Your task to perform on an android device: Show me productivity apps on the Play Store Image 0: 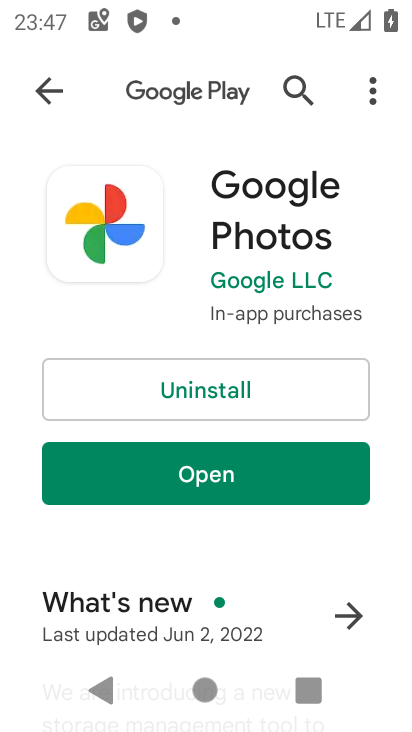
Step 0: press home button
Your task to perform on an android device: Show me productivity apps on the Play Store Image 1: 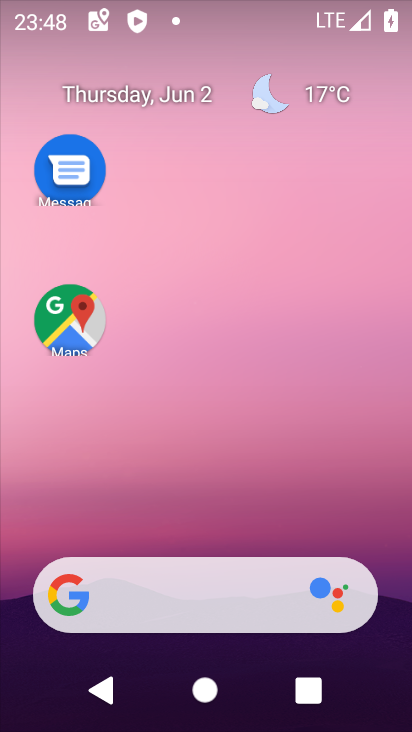
Step 1: drag from (399, 642) to (234, 70)
Your task to perform on an android device: Show me productivity apps on the Play Store Image 2: 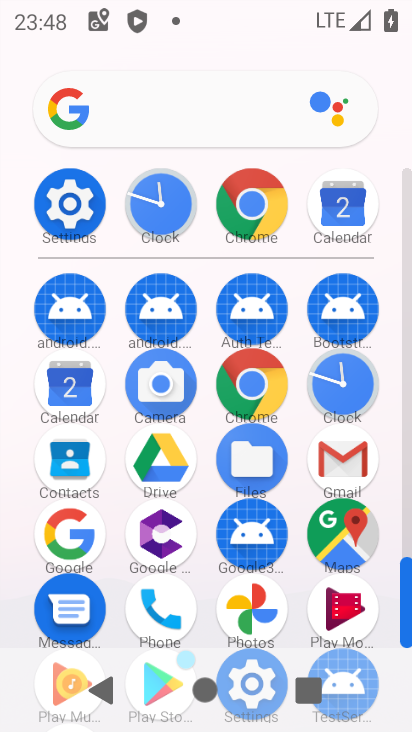
Step 2: drag from (302, 501) to (262, 627)
Your task to perform on an android device: Show me productivity apps on the Play Store Image 3: 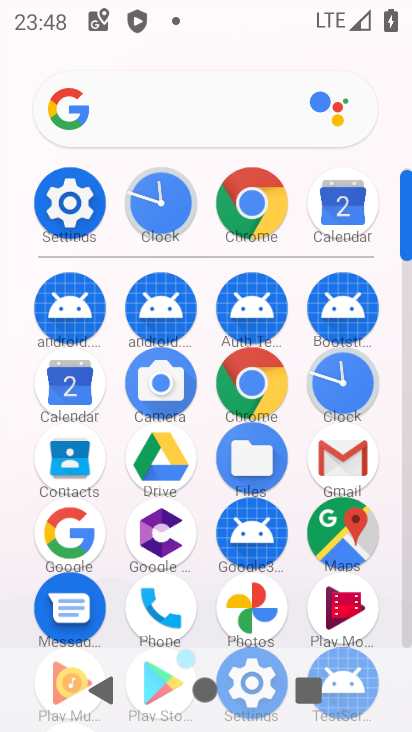
Step 3: drag from (300, 608) to (232, 358)
Your task to perform on an android device: Show me productivity apps on the Play Store Image 4: 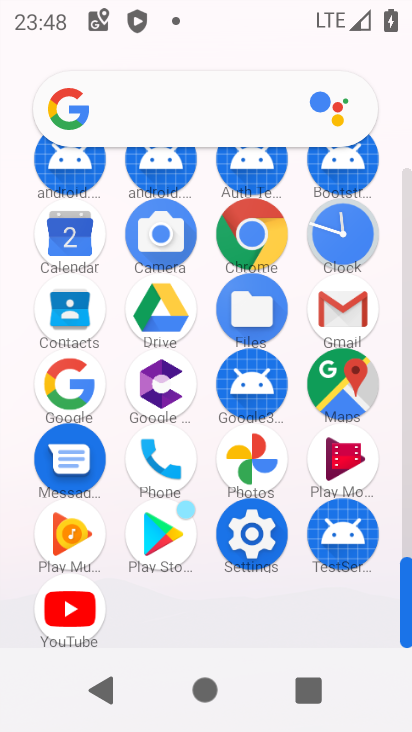
Step 4: click (175, 530)
Your task to perform on an android device: Show me productivity apps on the Play Store Image 5: 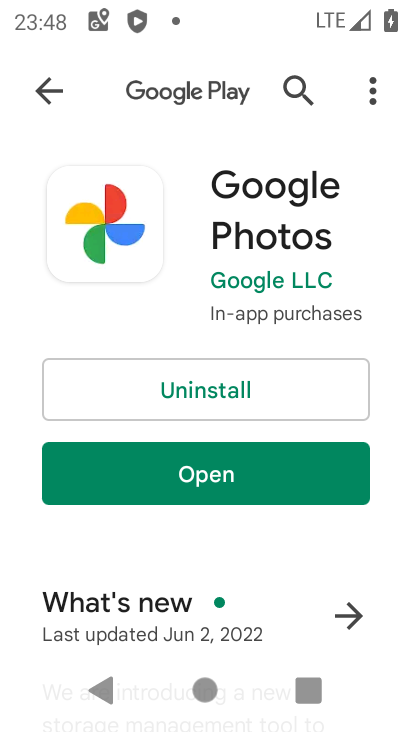
Step 5: click (28, 99)
Your task to perform on an android device: Show me productivity apps on the Play Store Image 6: 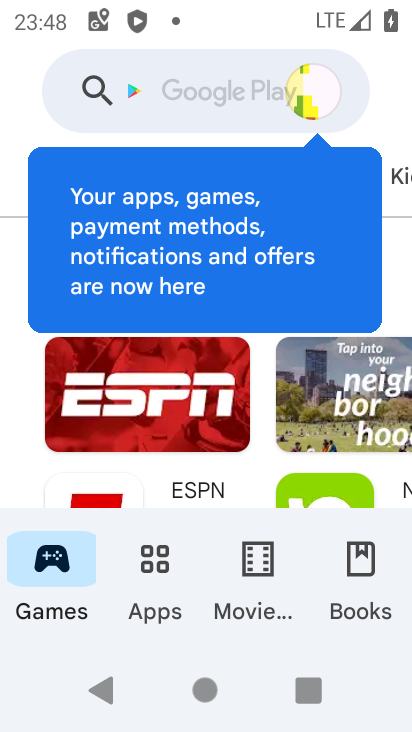
Step 6: click (203, 43)
Your task to perform on an android device: Show me productivity apps on the Play Store Image 7: 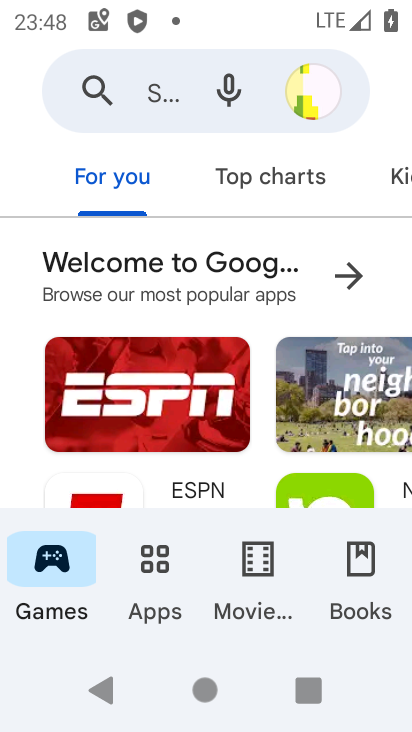
Step 7: click (153, 99)
Your task to perform on an android device: Show me productivity apps on the Play Store Image 8: 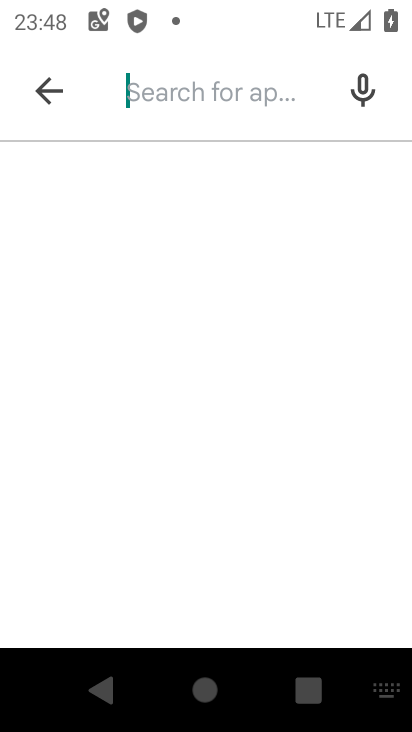
Step 8: type "productivity apps"
Your task to perform on an android device: Show me productivity apps on the Play Store Image 9: 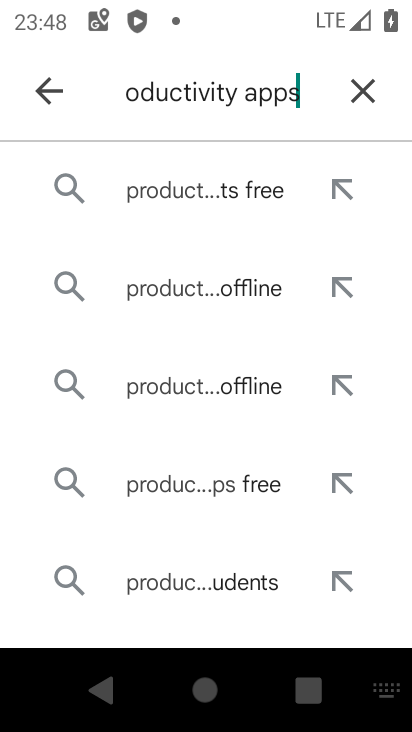
Step 9: click (145, 201)
Your task to perform on an android device: Show me productivity apps on the Play Store Image 10: 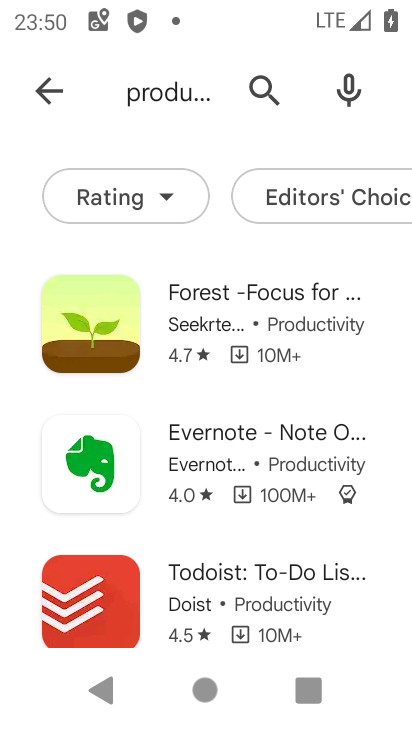
Step 10: task complete